Your task to perform on an android device: Nike Air Max 2020 shoes on Nike.com Image 0: 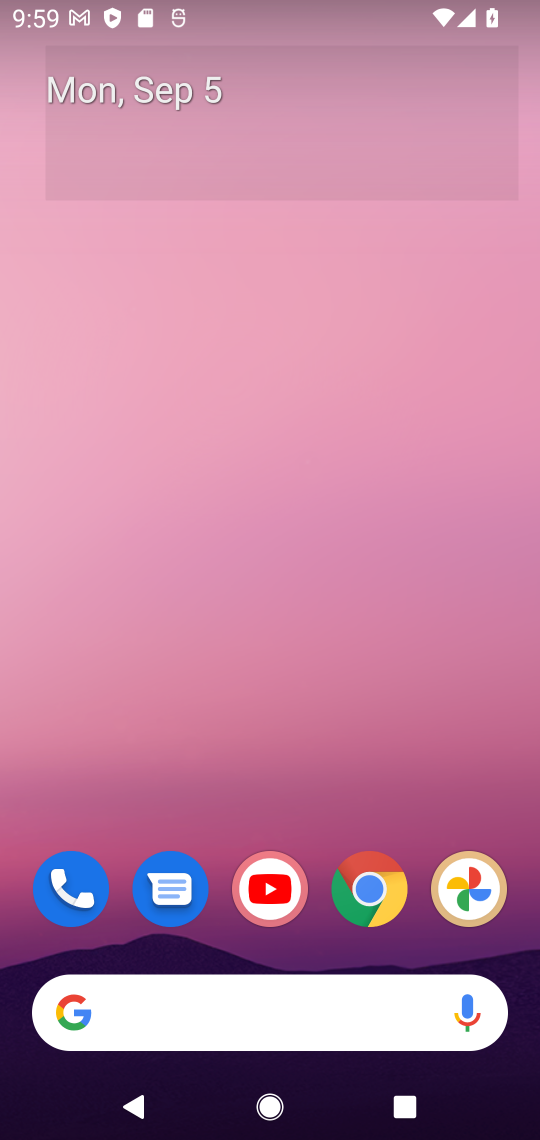
Step 0: click (245, 999)
Your task to perform on an android device: Nike Air Max 2020 shoes on Nike.com Image 1: 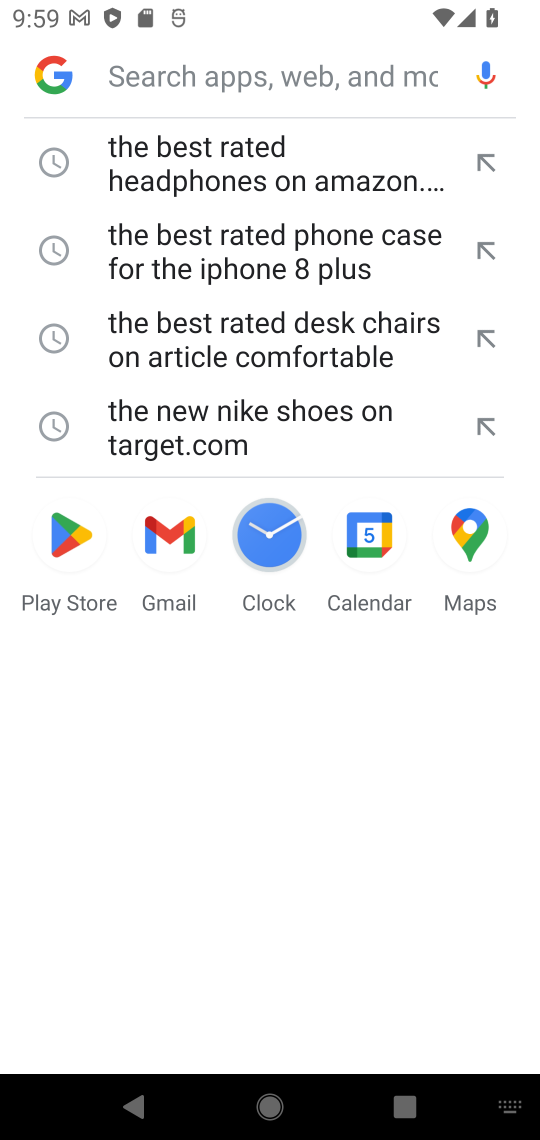
Step 1: type "Nike Air Max 2020 shoes on Nike.com"
Your task to perform on an android device: Nike Air Max 2020 shoes on Nike.com Image 2: 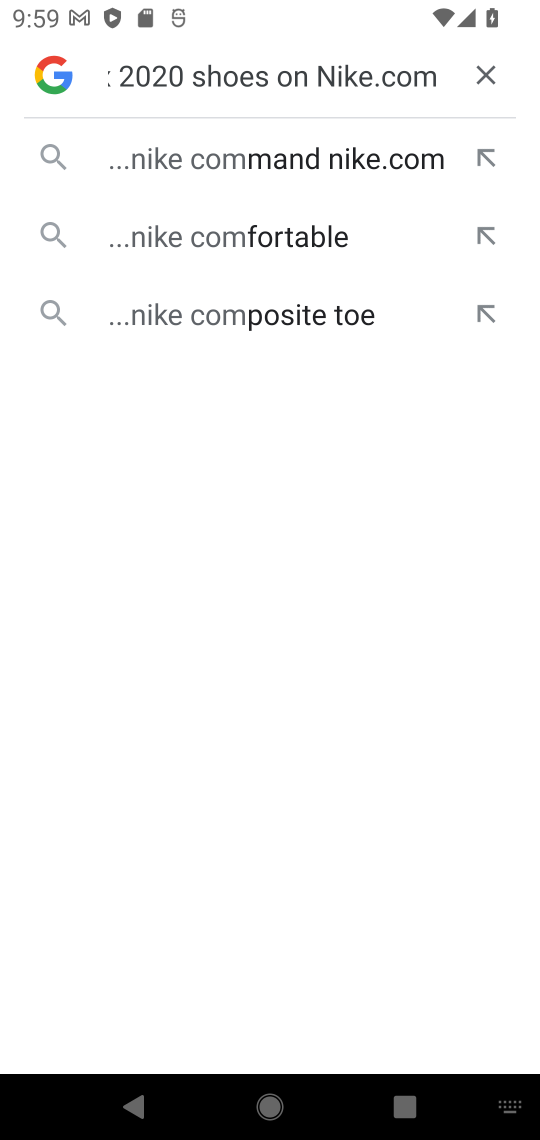
Step 2: click (214, 179)
Your task to perform on an android device: Nike Air Max 2020 shoes on Nike.com Image 3: 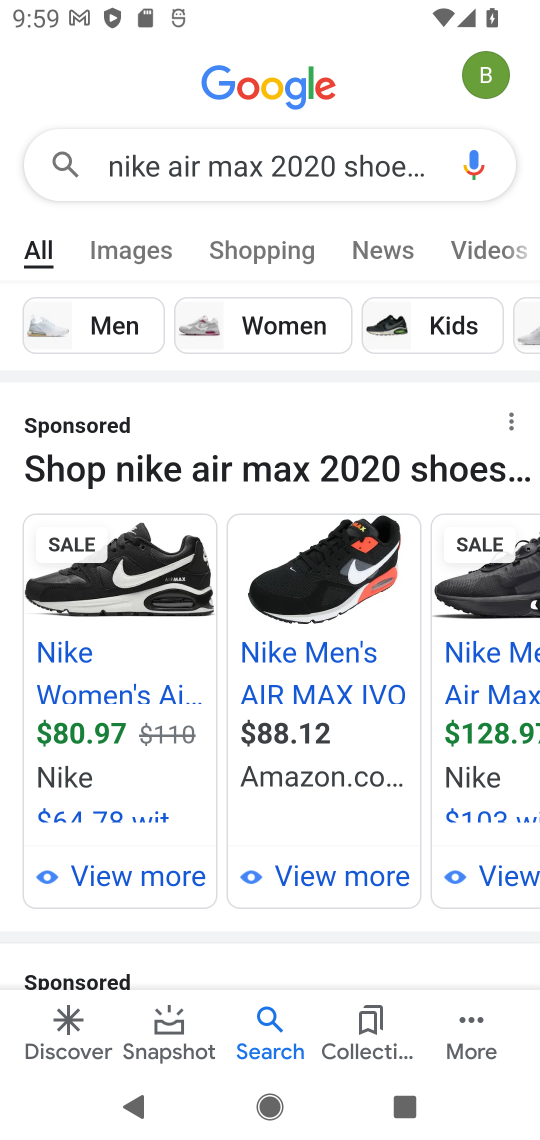
Step 3: task complete